Your task to perform on an android device: toggle airplane mode Image 0: 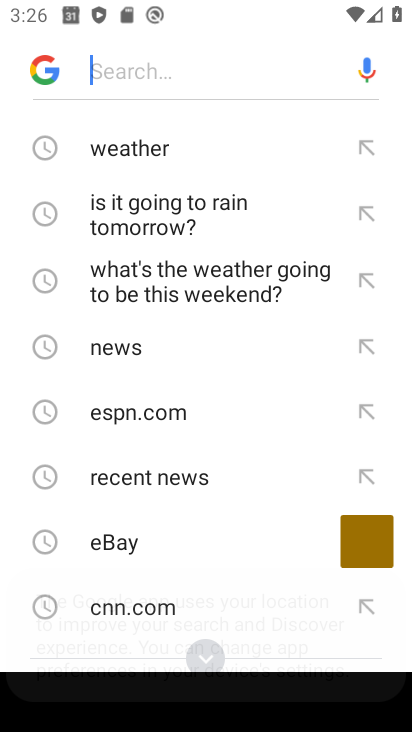
Step 0: press back button
Your task to perform on an android device: toggle airplane mode Image 1: 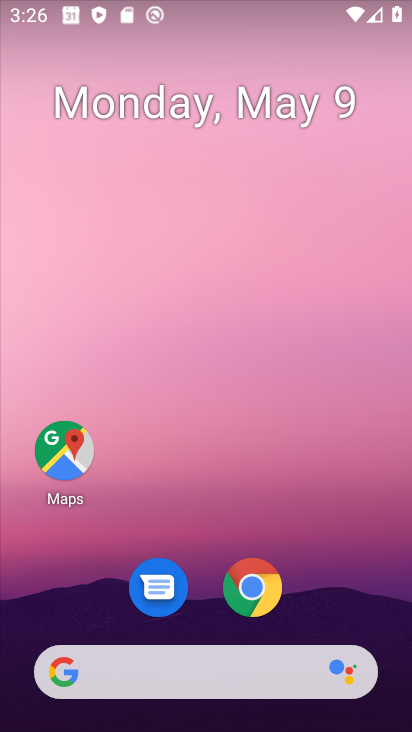
Step 1: drag from (402, 598) to (411, 126)
Your task to perform on an android device: toggle airplane mode Image 2: 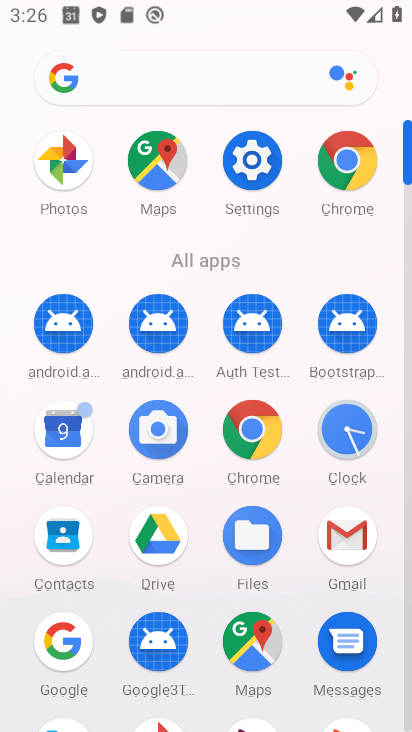
Step 2: click (243, 168)
Your task to perform on an android device: toggle airplane mode Image 3: 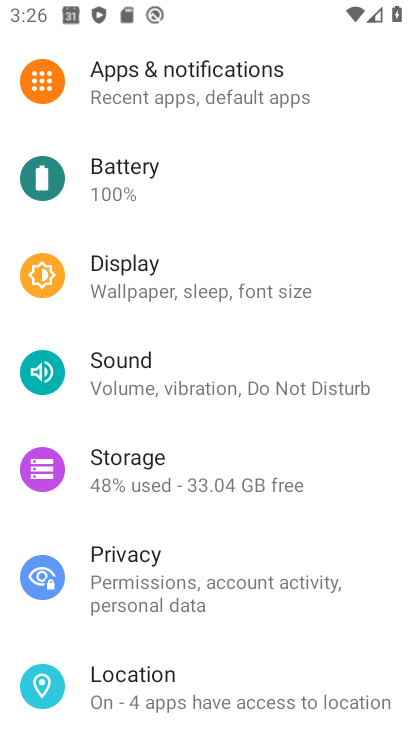
Step 3: drag from (352, 181) to (406, 528)
Your task to perform on an android device: toggle airplane mode Image 4: 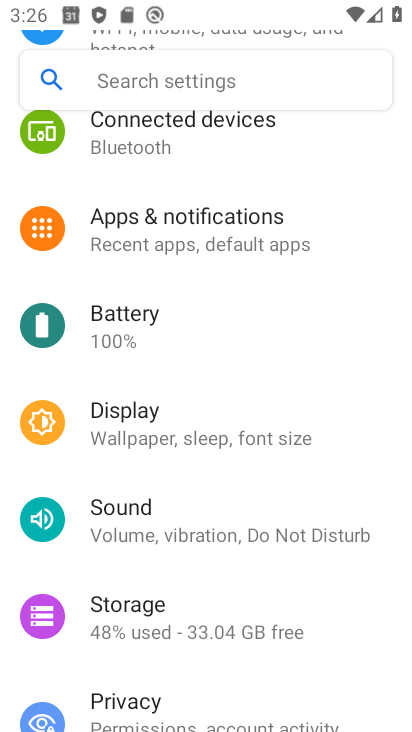
Step 4: drag from (388, 422) to (402, 583)
Your task to perform on an android device: toggle airplane mode Image 5: 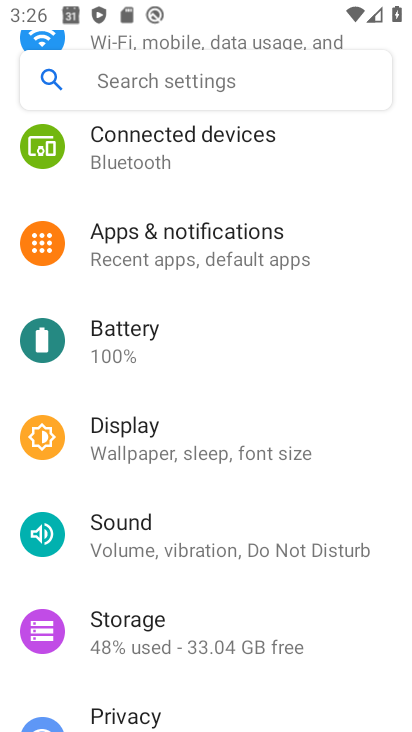
Step 5: drag from (383, 192) to (378, 660)
Your task to perform on an android device: toggle airplane mode Image 6: 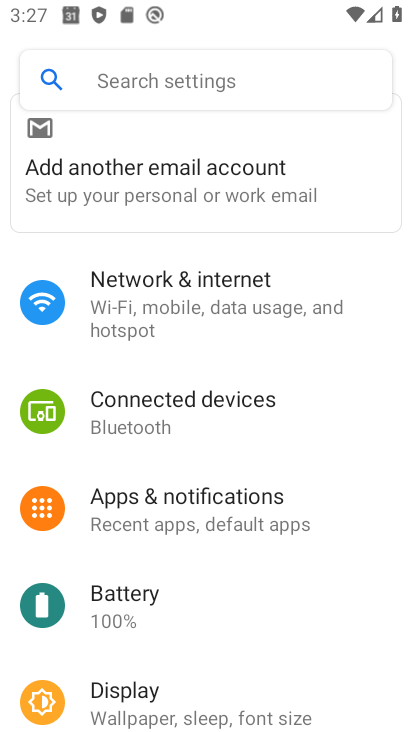
Step 6: click (128, 289)
Your task to perform on an android device: toggle airplane mode Image 7: 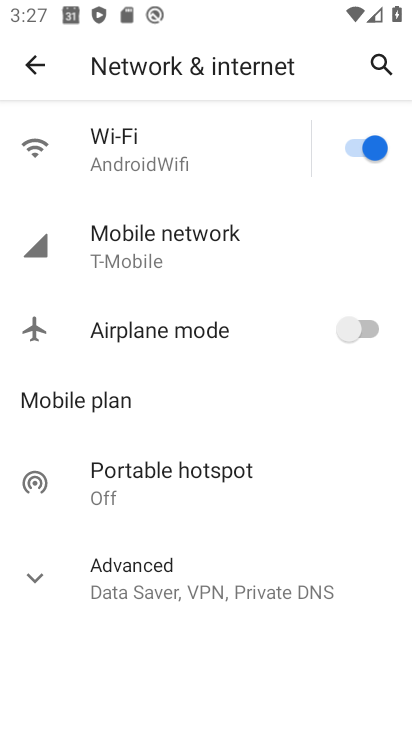
Step 7: click (350, 149)
Your task to perform on an android device: toggle airplane mode Image 8: 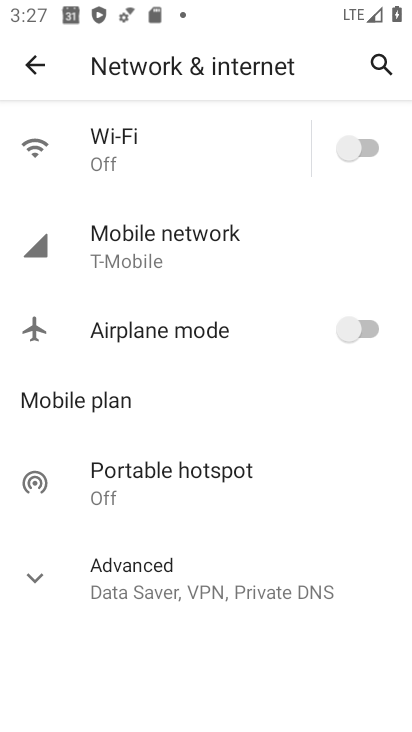
Step 8: click (377, 148)
Your task to perform on an android device: toggle airplane mode Image 9: 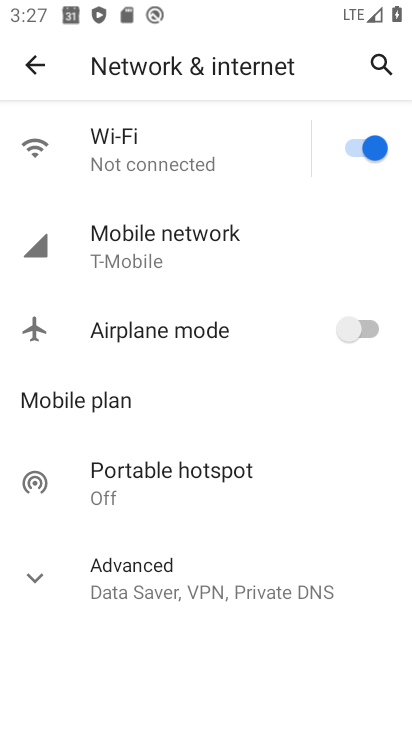
Step 9: click (370, 329)
Your task to perform on an android device: toggle airplane mode Image 10: 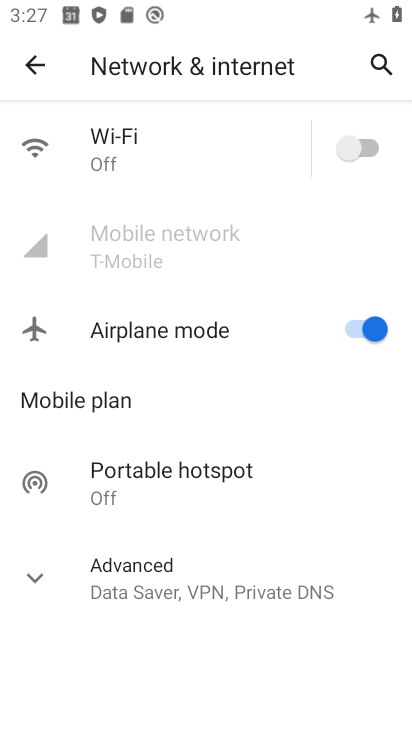
Step 10: task complete